Your task to perform on an android device: Do I have any events this weekend? Image 0: 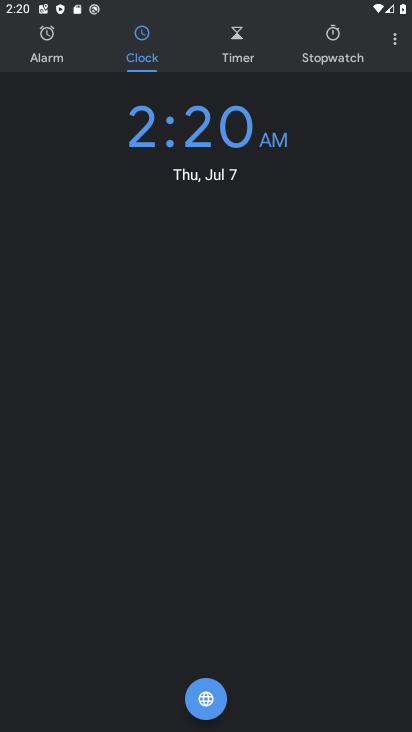
Step 0: press home button
Your task to perform on an android device: Do I have any events this weekend? Image 1: 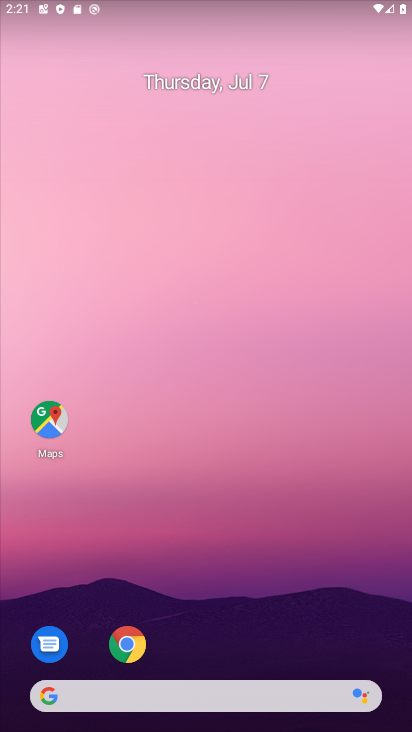
Step 1: drag from (288, 626) to (318, 127)
Your task to perform on an android device: Do I have any events this weekend? Image 2: 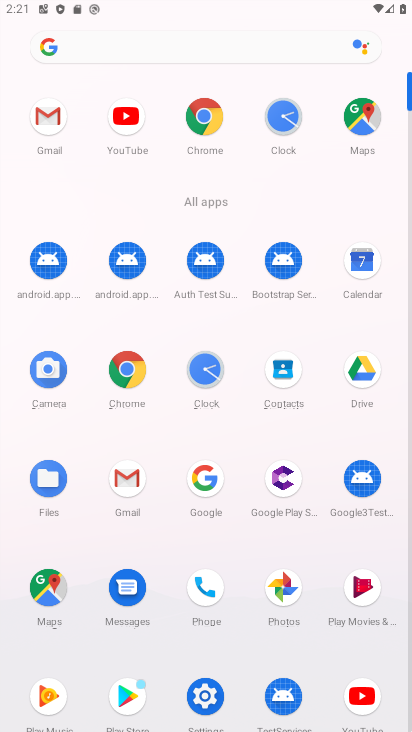
Step 2: click (365, 264)
Your task to perform on an android device: Do I have any events this weekend? Image 3: 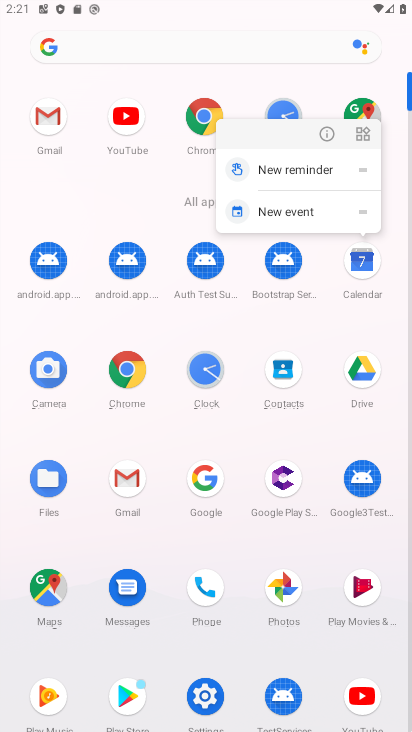
Step 3: click (355, 260)
Your task to perform on an android device: Do I have any events this weekend? Image 4: 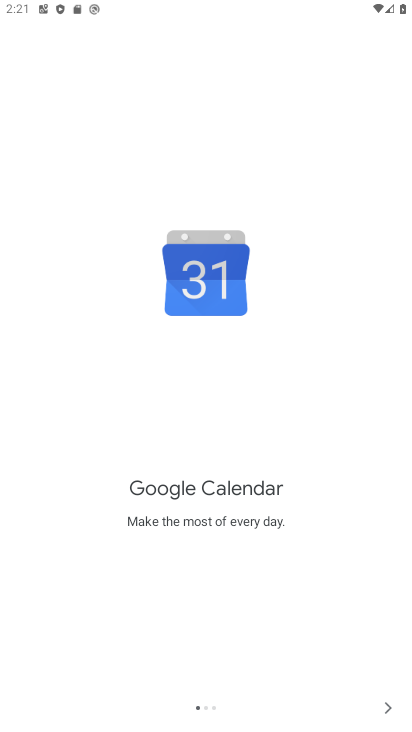
Step 4: click (382, 702)
Your task to perform on an android device: Do I have any events this weekend? Image 5: 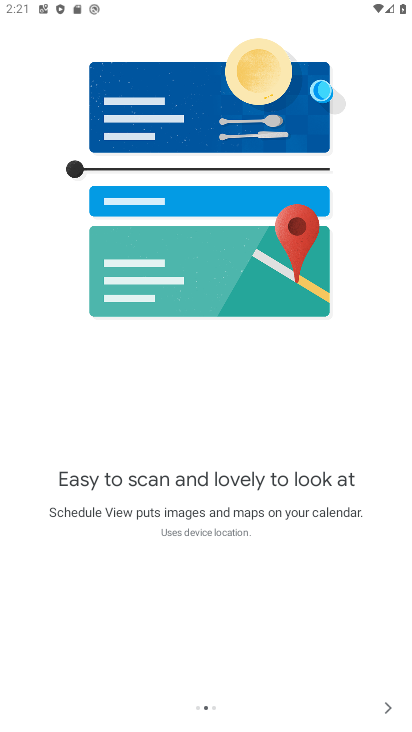
Step 5: click (382, 700)
Your task to perform on an android device: Do I have any events this weekend? Image 6: 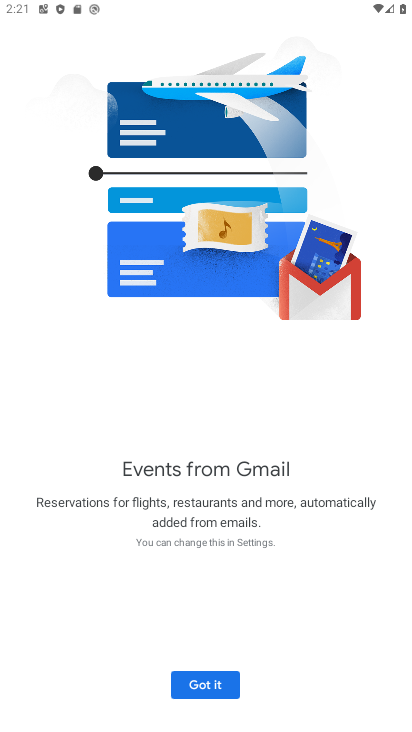
Step 6: click (200, 686)
Your task to perform on an android device: Do I have any events this weekend? Image 7: 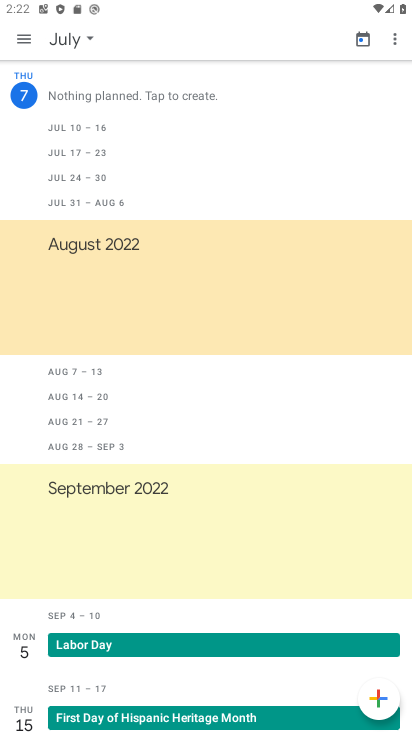
Step 7: click (22, 38)
Your task to perform on an android device: Do I have any events this weekend? Image 8: 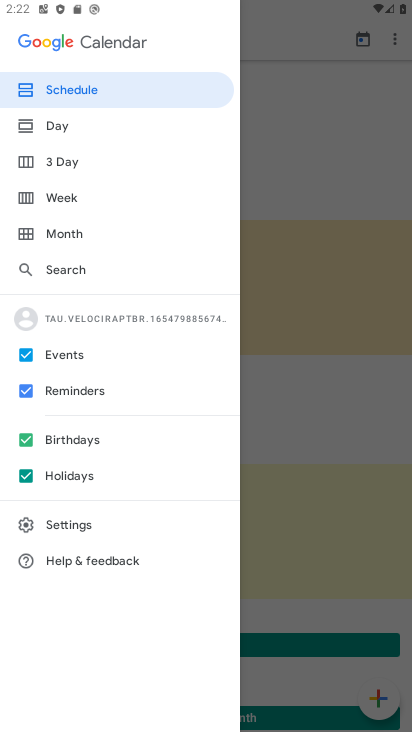
Step 8: click (68, 198)
Your task to perform on an android device: Do I have any events this weekend? Image 9: 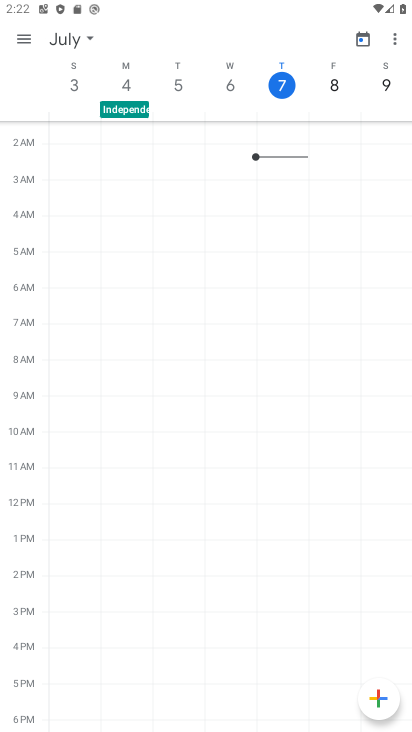
Step 9: click (338, 100)
Your task to perform on an android device: Do I have any events this weekend? Image 10: 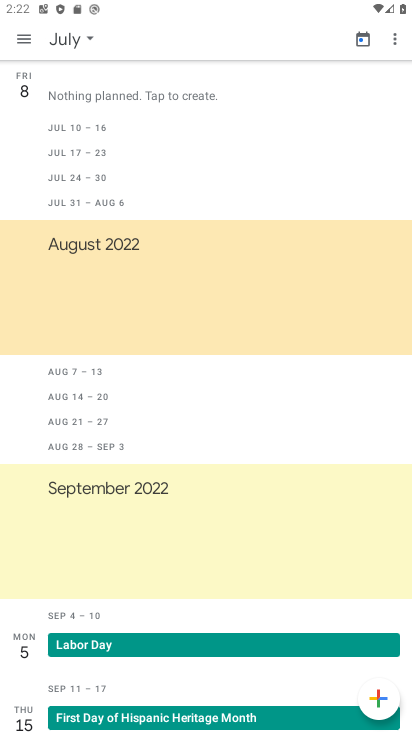
Step 10: click (86, 37)
Your task to perform on an android device: Do I have any events this weekend? Image 11: 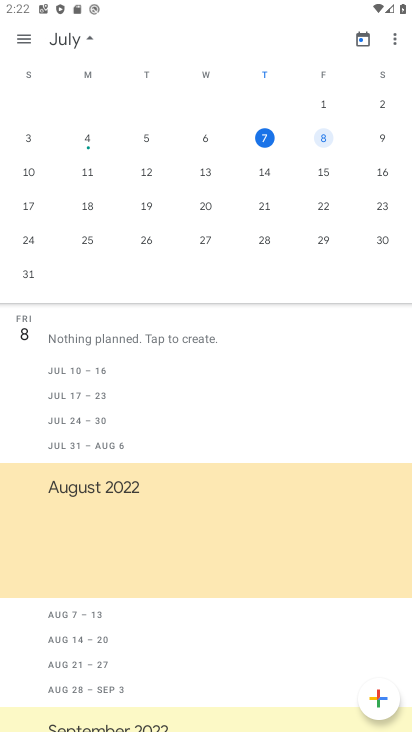
Step 11: click (380, 139)
Your task to perform on an android device: Do I have any events this weekend? Image 12: 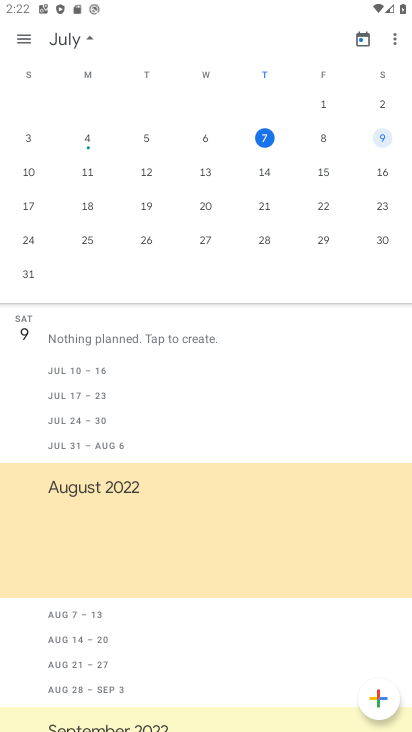
Step 12: click (380, 138)
Your task to perform on an android device: Do I have any events this weekend? Image 13: 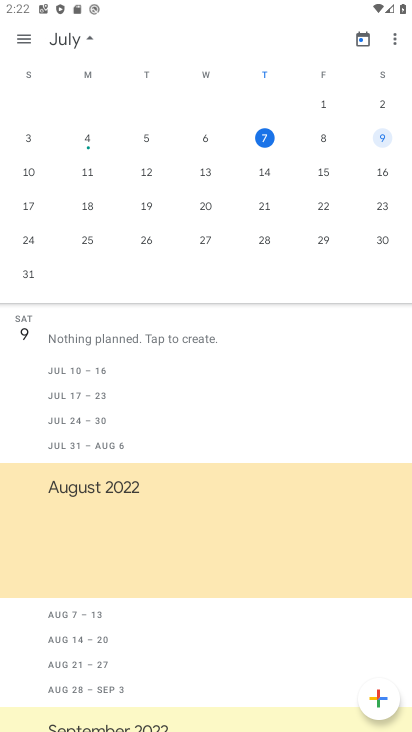
Step 13: click (382, 138)
Your task to perform on an android device: Do I have any events this weekend? Image 14: 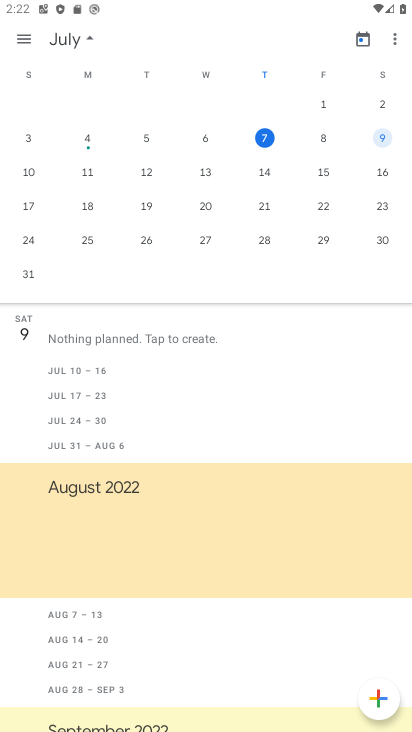
Step 14: click (34, 173)
Your task to perform on an android device: Do I have any events this weekend? Image 15: 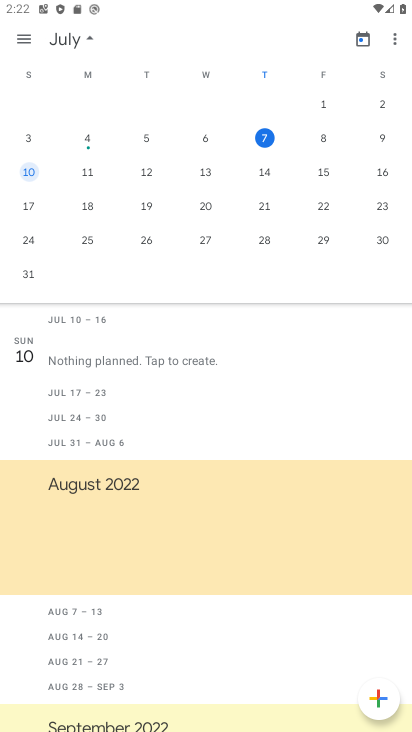
Step 15: click (377, 137)
Your task to perform on an android device: Do I have any events this weekend? Image 16: 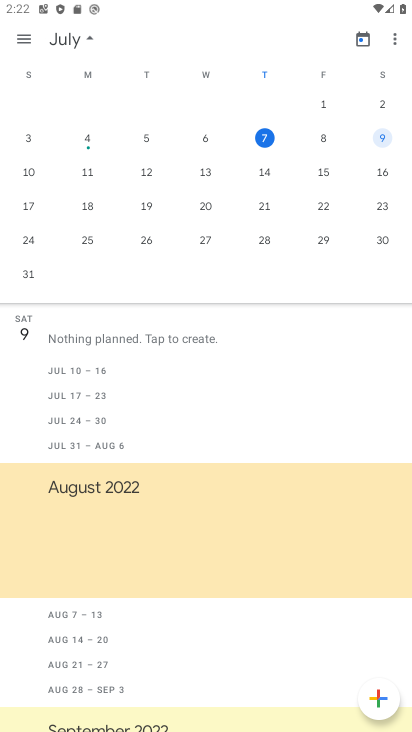
Step 16: task complete